Your task to perform on an android device: What's the weather today? Image 0: 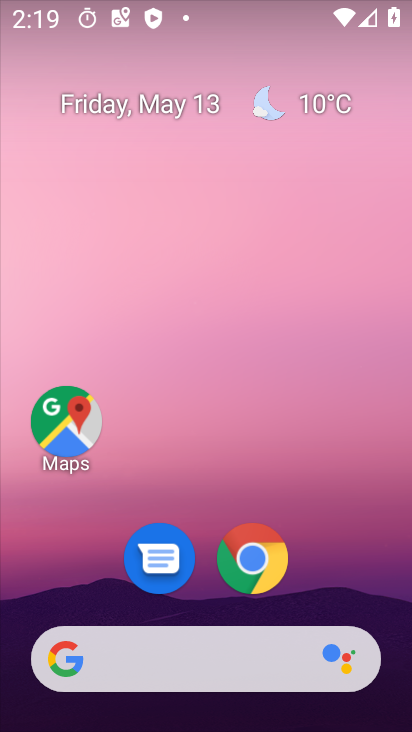
Step 0: drag from (218, 600) to (304, 48)
Your task to perform on an android device: What's the weather today? Image 1: 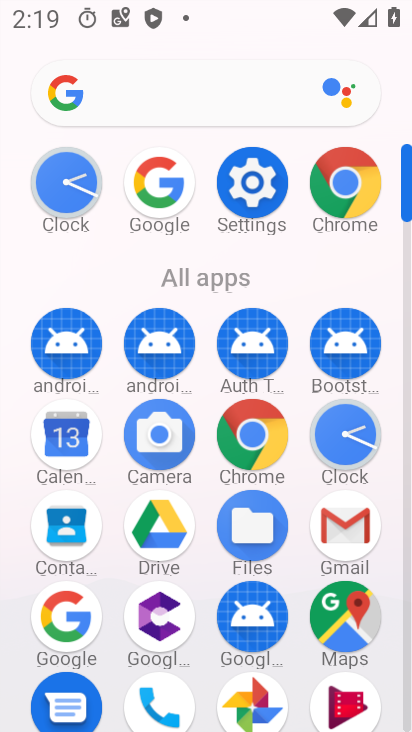
Step 1: click (82, 612)
Your task to perform on an android device: What's the weather today? Image 2: 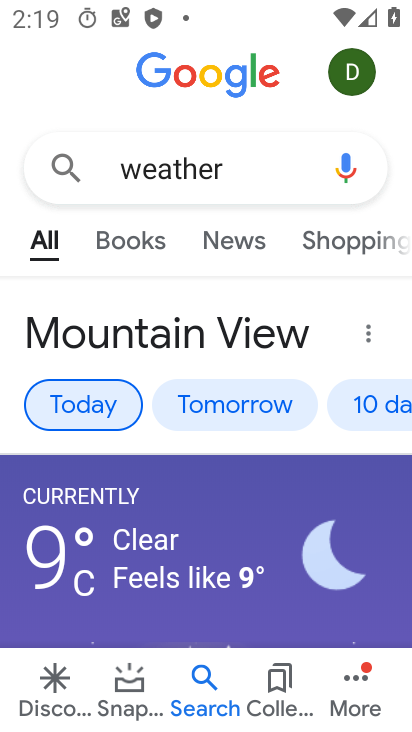
Step 2: task complete